Your task to perform on an android device: Open privacy settings Image 0: 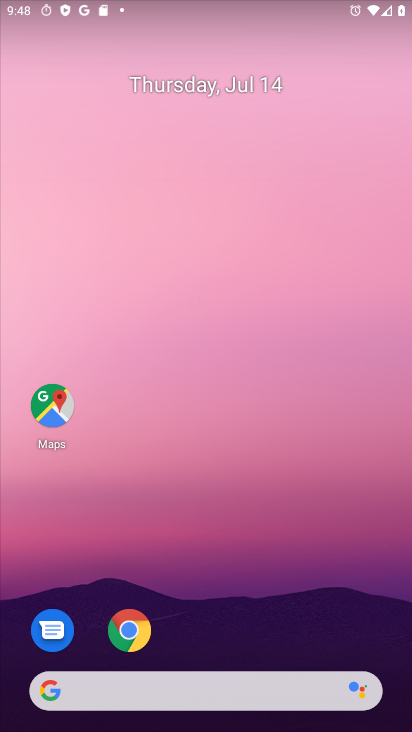
Step 0: click (272, 78)
Your task to perform on an android device: Open privacy settings Image 1: 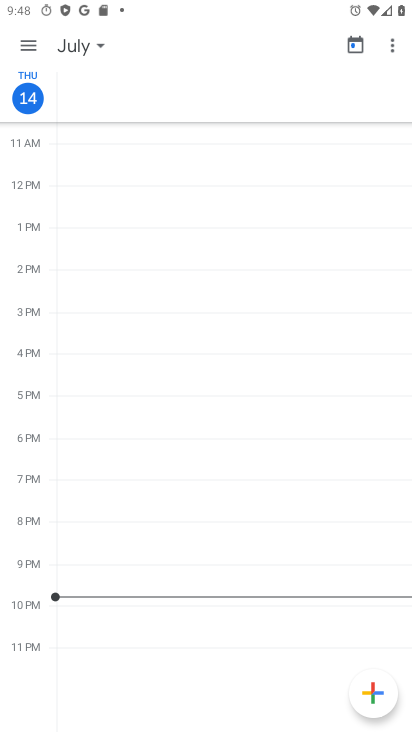
Step 1: press home button
Your task to perform on an android device: Open privacy settings Image 2: 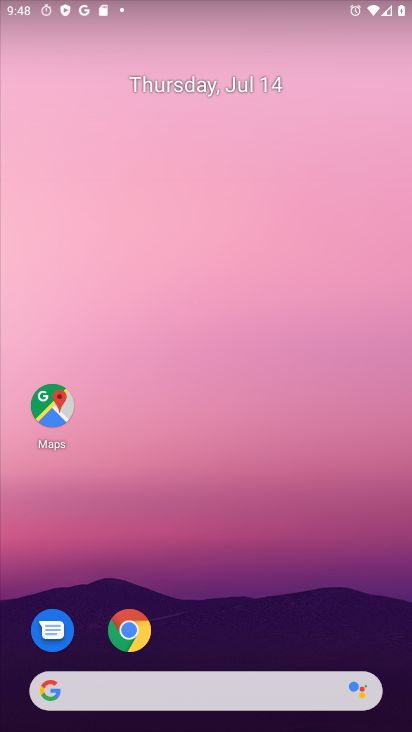
Step 2: drag from (7, 701) to (232, 96)
Your task to perform on an android device: Open privacy settings Image 3: 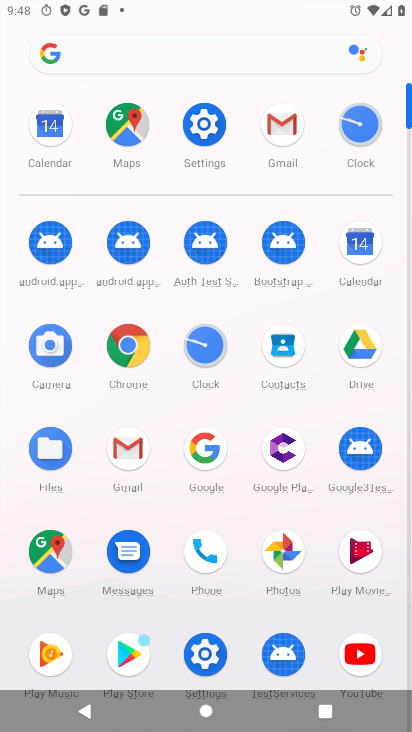
Step 3: click (194, 641)
Your task to perform on an android device: Open privacy settings Image 4: 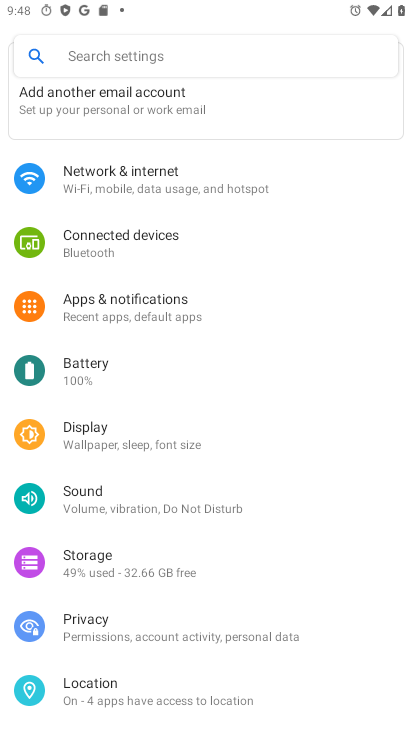
Step 4: drag from (343, 447) to (343, 91)
Your task to perform on an android device: Open privacy settings Image 5: 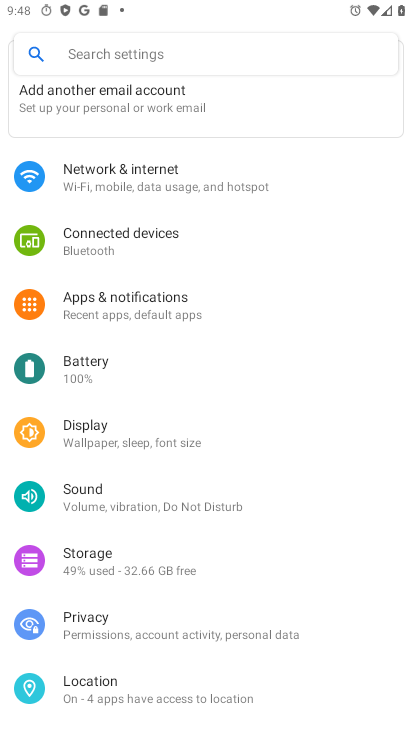
Step 5: click (139, 603)
Your task to perform on an android device: Open privacy settings Image 6: 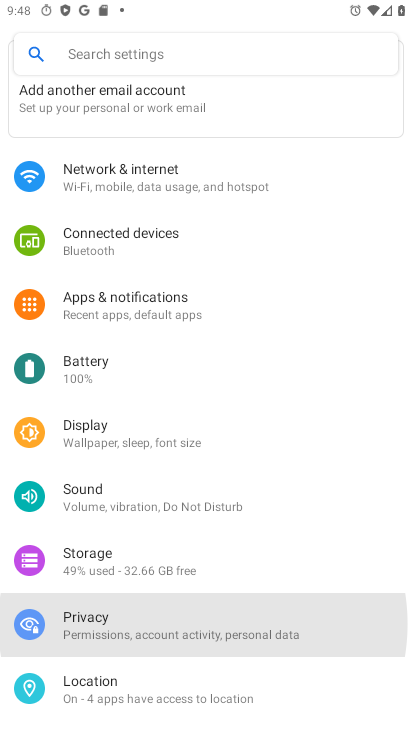
Step 6: click (145, 628)
Your task to perform on an android device: Open privacy settings Image 7: 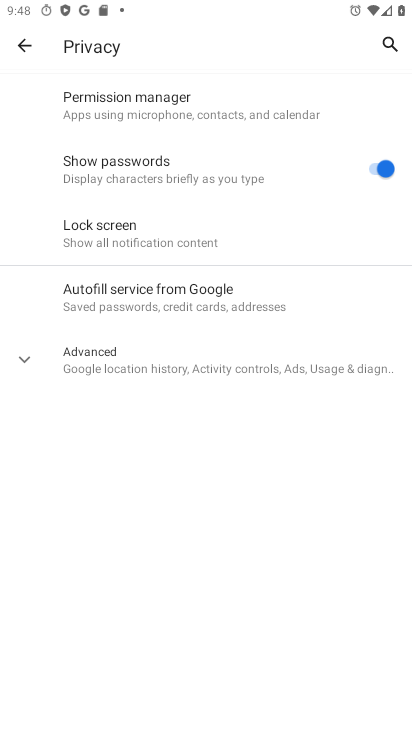
Step 7: task complete